Your task to perform on an android device: Add razer deathadder to the cart on amazon, then select checkout. Image 0: 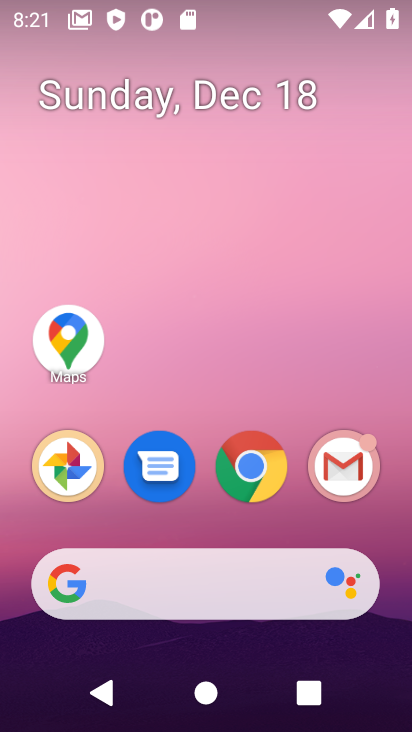
Step 0: click (248, 473)
Your task to perform on an android device: Add razer deathadder to the cart on amazon, then select checkout. Image 1: 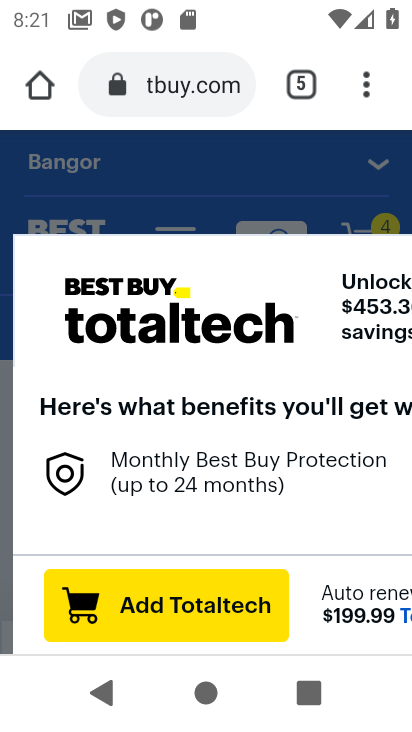
Step 1: click (195, 86)
Your task to perform on an android device: Add razer deathadder to the cart on amazon, then select checkout. Image 2: 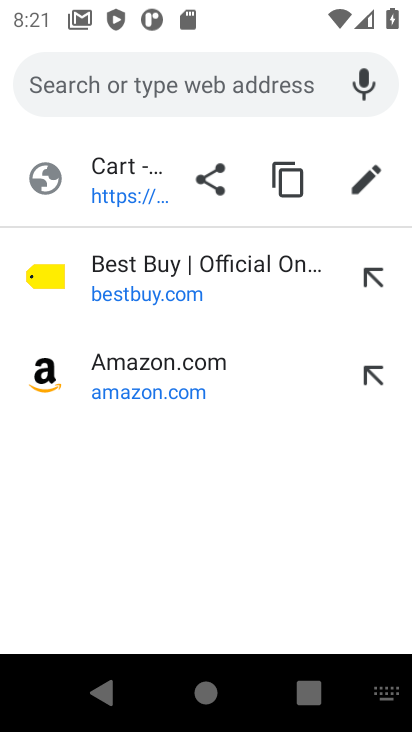
Step 2: click (184, 368)
Your task to perform on an android device: Add razer deathadder to the cart on amazon, then select checkout. Image 3: 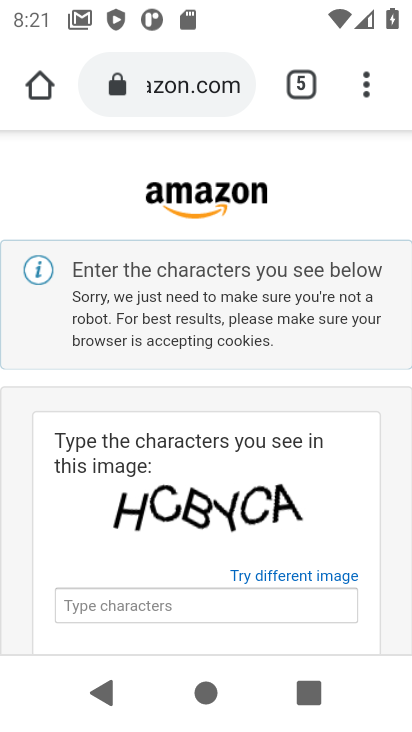
Step 3: click (226, 598)
Your task to perform on an android device: Add razer deathadder to the cart on amazon, then select checkout. Image 4: 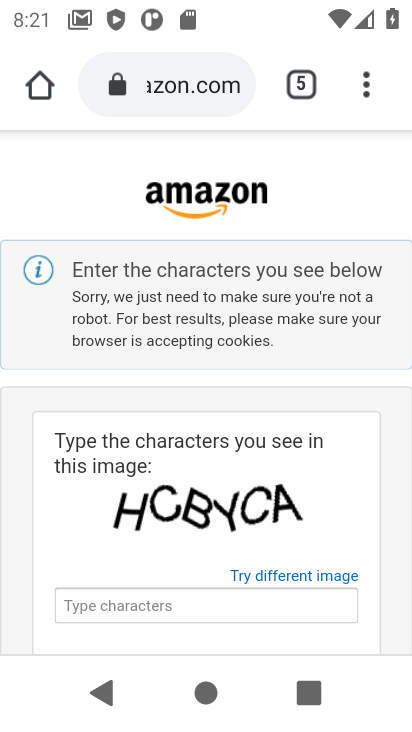
Step 4: click (226, 598)
Your task to perform on an android device: Add razer deathadder to the cart on amazon, then select checkout. Image 5: 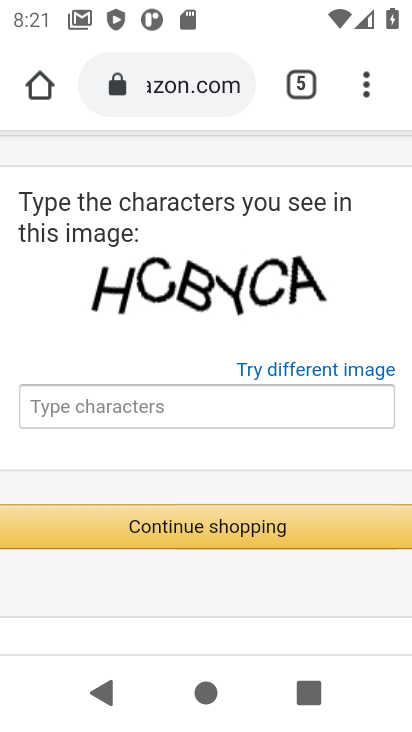
Step 5: click (237, 400)
Your task to perform on an android device: Add razer deathadder to the cart on amazon, then select checkout. Image 6: 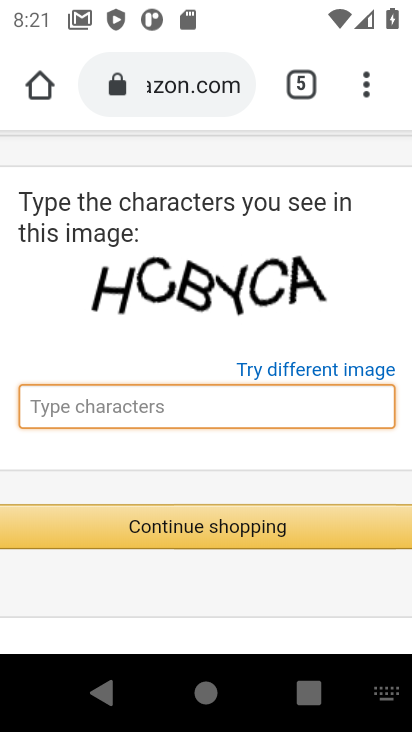
Step 6: type "HCBYCA"
Your task to perform on an android device: Add razer deathadder to the cart on amazon, then select checkout. Image 7: 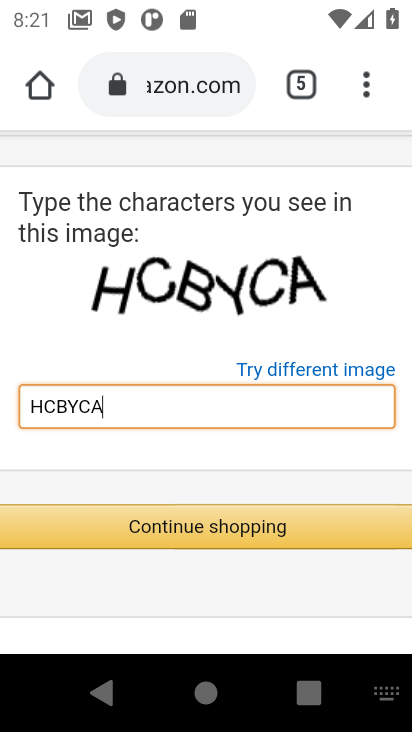
Step 7: click (243, 525)
Your task to perform on an android device: Add razer deathadder to the cart on amazon, then select checkout. Image 8: 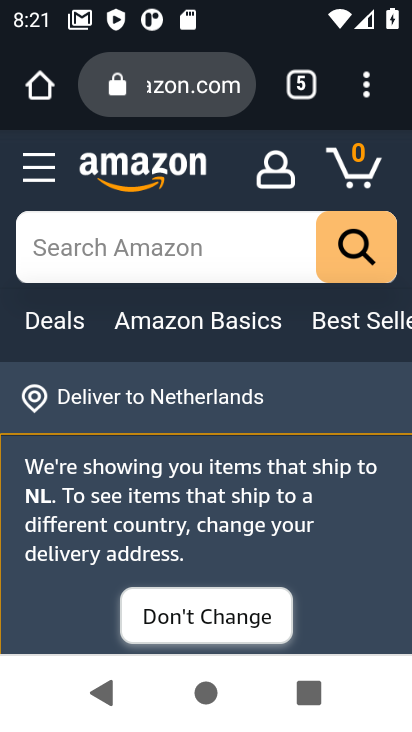
Step 8: click (193, 254)
Your task to perform on an android device: Add razer deathadder to the cart on amazon, then select checkout. Image 9: 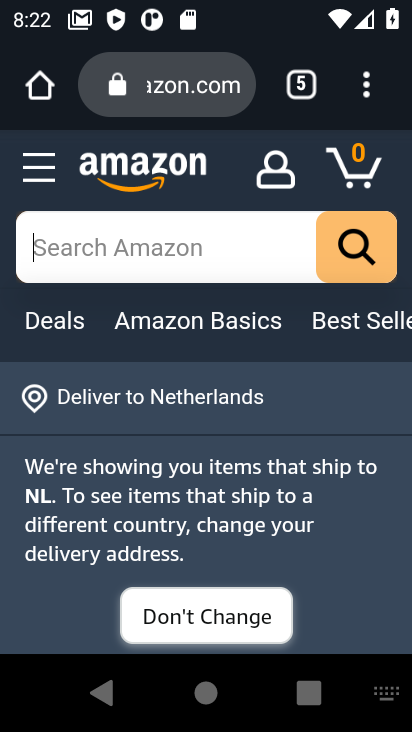
Step 9: type "RAZER DEATHADDER"
Your task to perform on an android device: Add razer deathadder to the cart on amazon, then select checkout. Image 10: 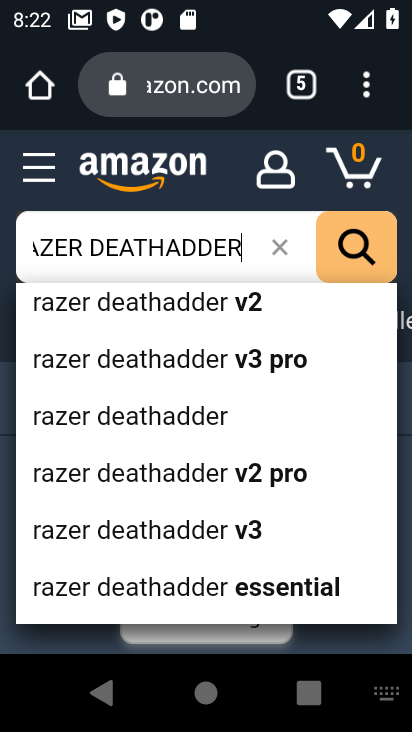
Step 10: click (196, 301)
Your task to perform on an android device: Add razer deathadder to the cart on amazon, then select checkout. Image 11: 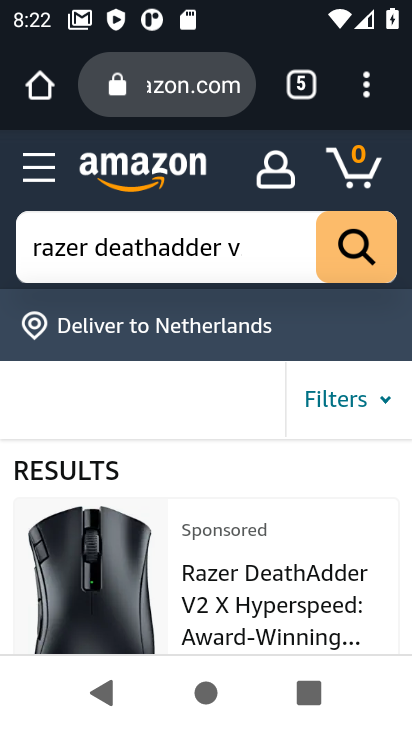
Step 11: click (313, 600)
Your task to perform on an android device: Add razer deathadder to the cart on amazon, then select checkout. Image 12: 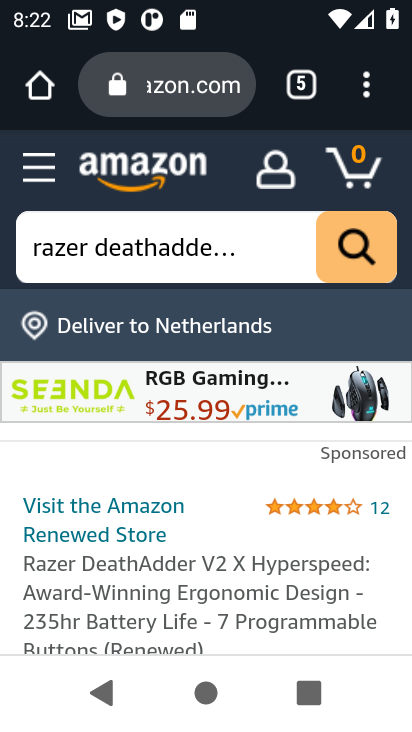
Step 12: task complete